Your task to perform on an android device: When is my next meeting? Image 0: 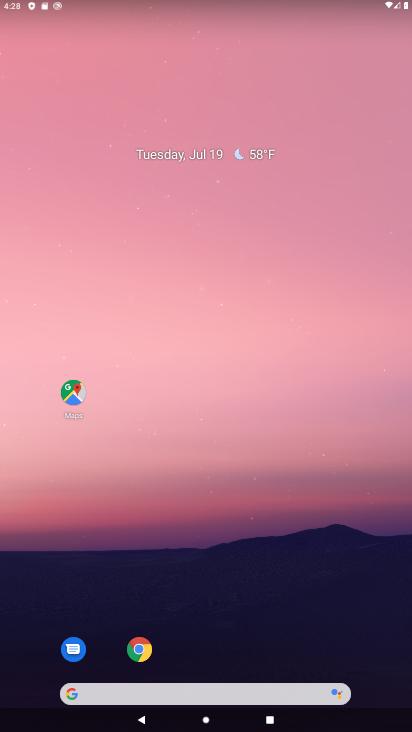
Step 0: click (228, 73)
Your task to perform on an android device: When is my next meeting? Image 1: 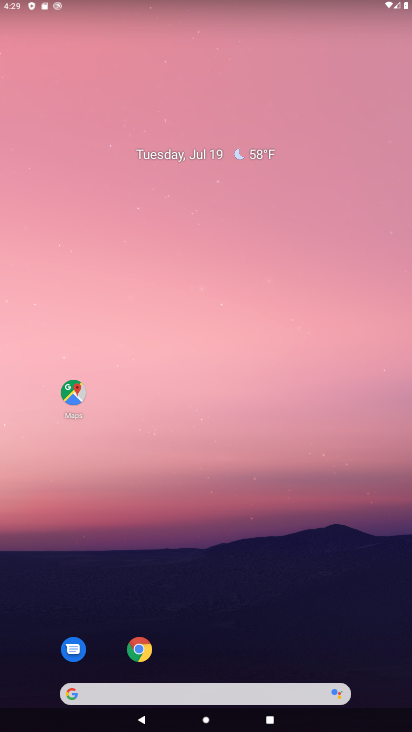
Step 1: drag from (332, 567) to (247, 130)
Your task to perform on an android device: When is my next meeting? Image 2: 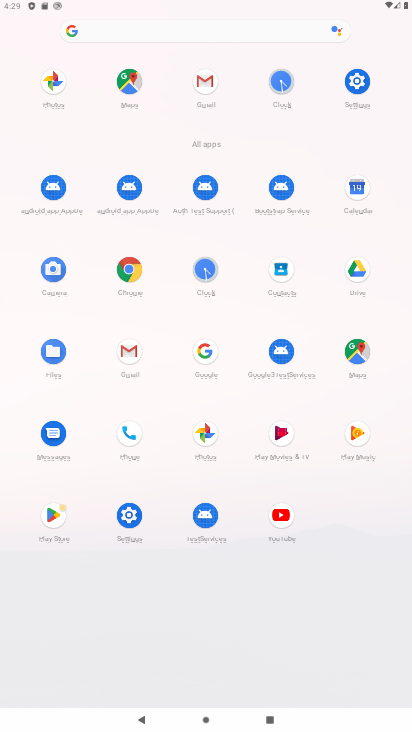
Step 2: click (363, 186)
Your task to perform on an android device: When is my next meeting? Image 3: 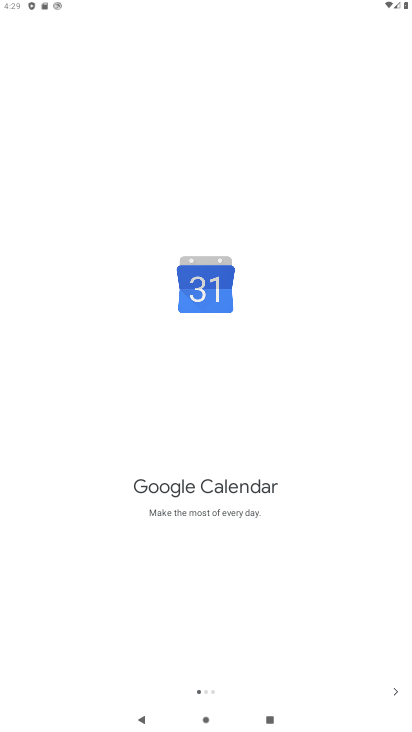
Step 3: click (399, 691)
Your task to perform on an android device: When is my next meeting? Image 4: 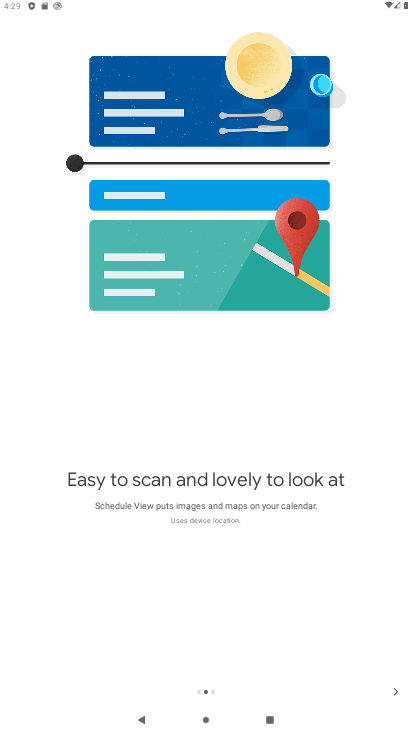
Step 4: click (392, 695)
Your task to perform on an android device: When is my next meeting? Image 5: 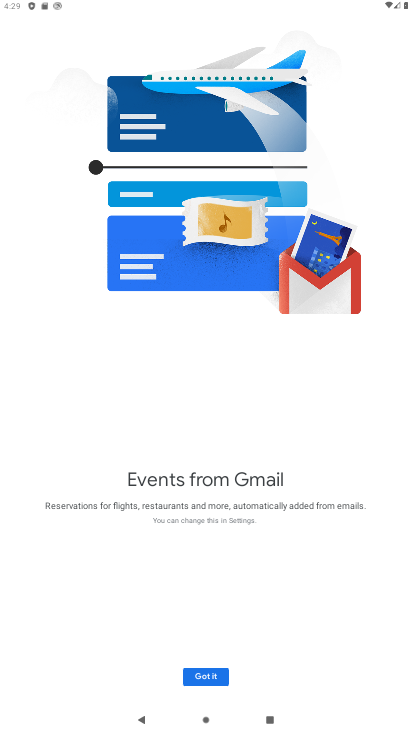
Step 5: click (233, 674)
Your task to perform on an android device: When is my next meeting? Image 6: 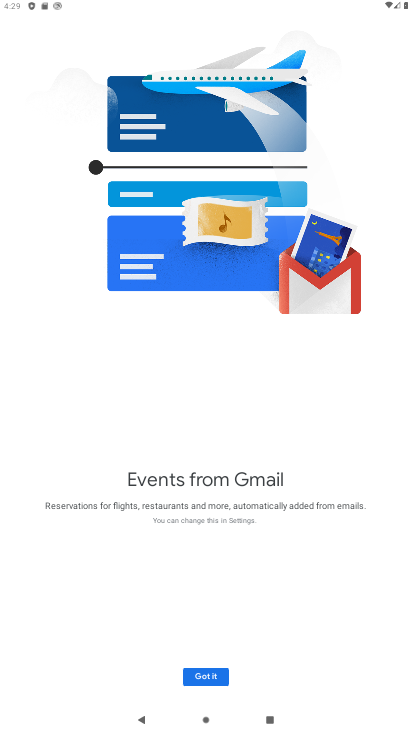
Step 6: click (226, 676)
Your task to perform on an android device: When is my next meeting? Image 7: 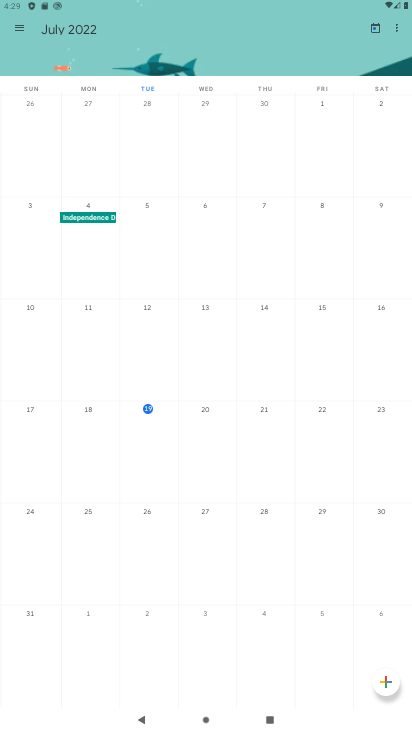
Step 7: click (154, 408)
Your task to perform on an android device: When is my next meeting? Image 8: 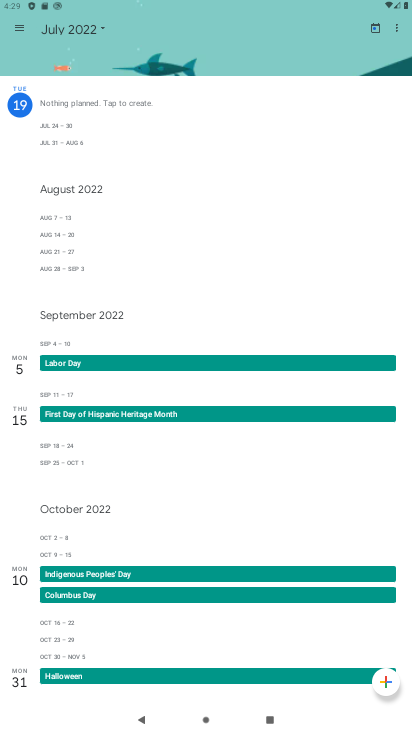
Step 8: task complete